Your task to perform on an android device: Open display settings Image 0: 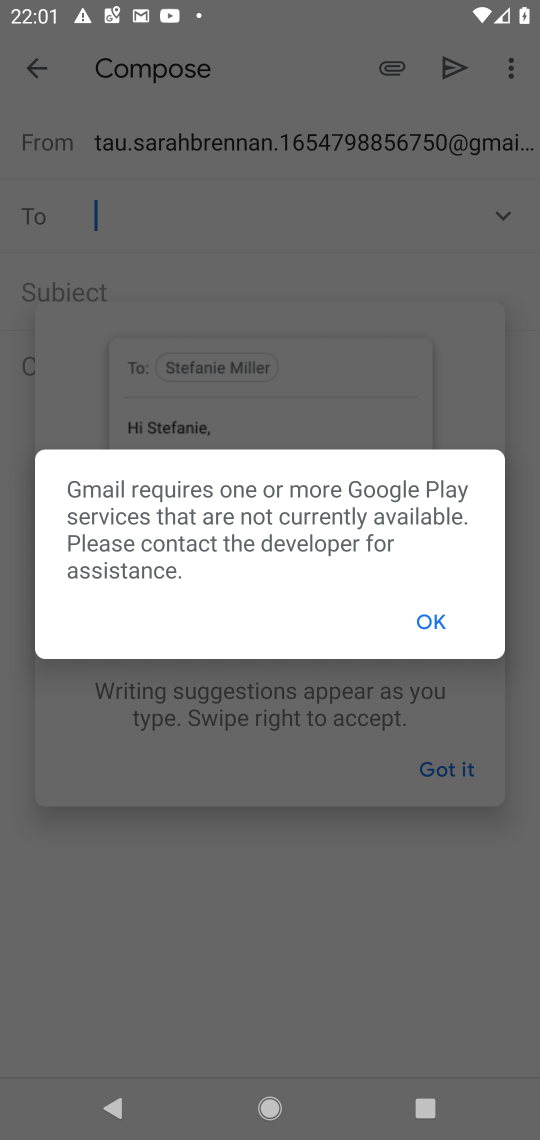
Step 0: press home button
Your task to perform on an android device: Open display settings Image 1: 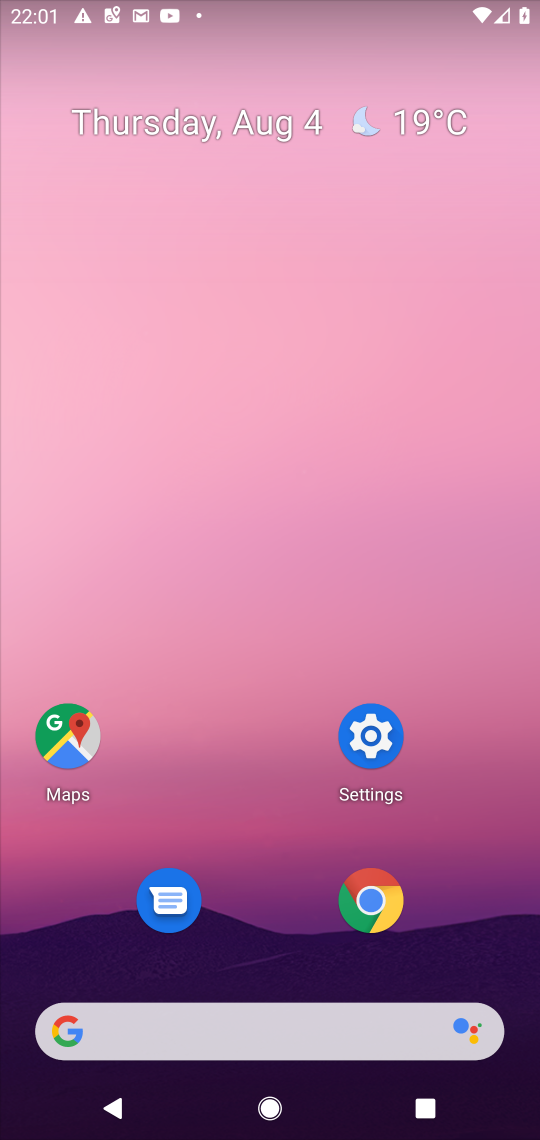
Step 1: click (385, 716)
Your task to perform on an android device: Open display settings Image 2: 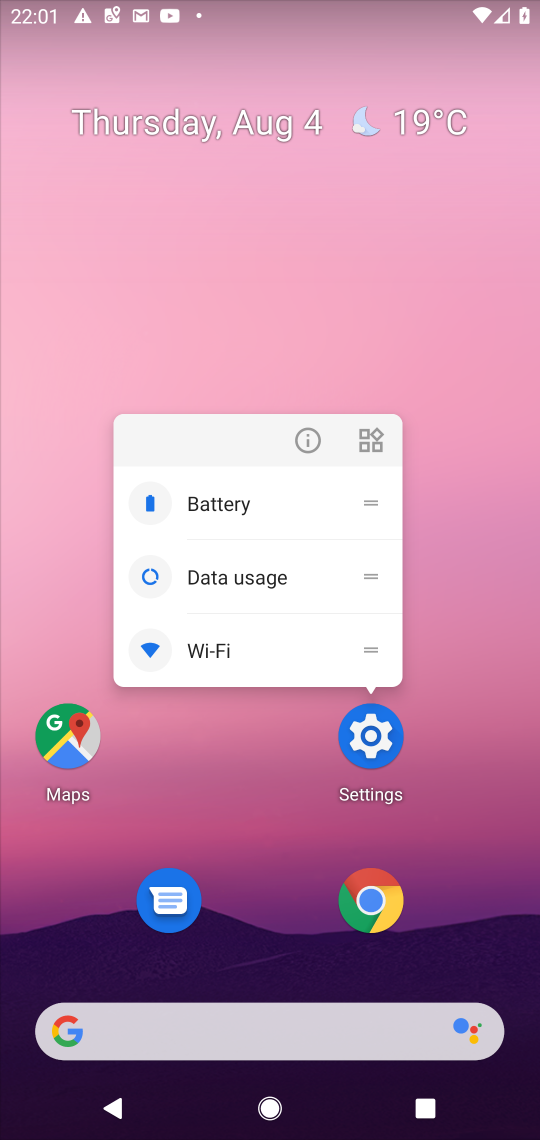
Step 2: click (378, 726)
Your task to perform on an android device: Open display settings Image 3: 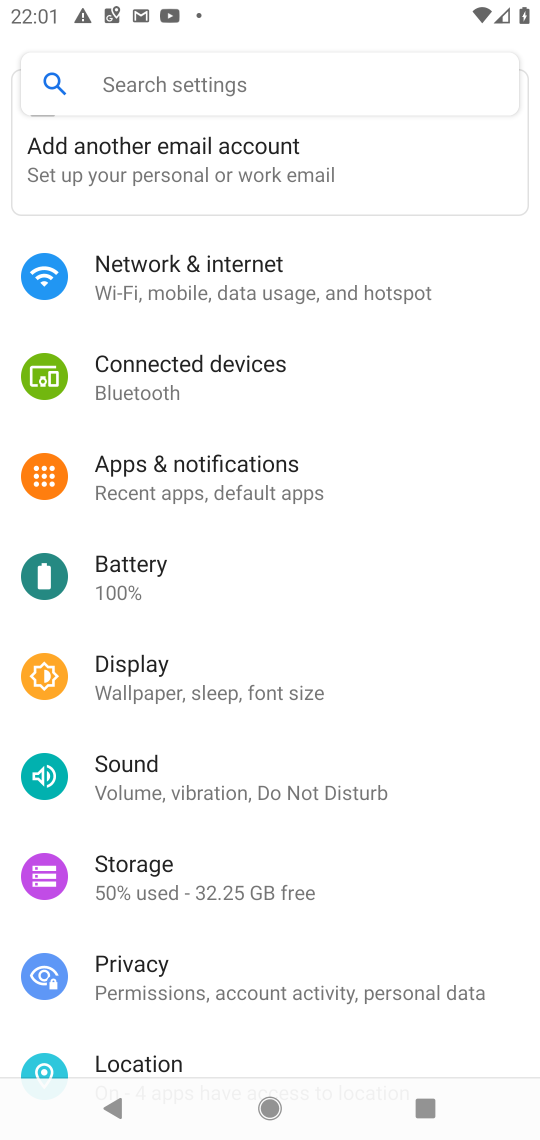
Step 3: click (153, 668)
Your task to perform on an android device: Open display settings Image 4: 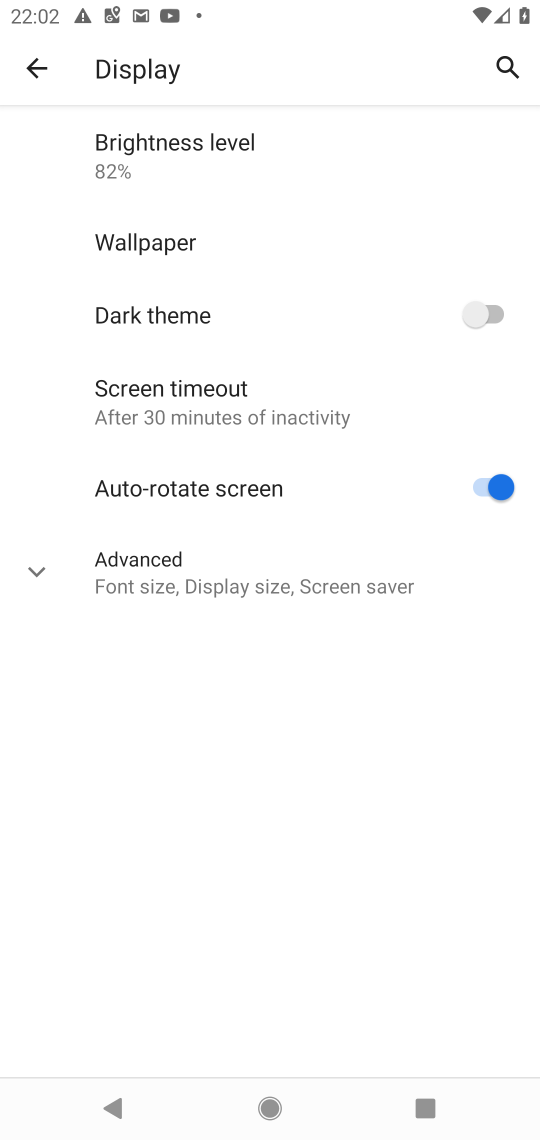
Step 4: task complete